Your task to perform on an android device: turn off wifi Image 0: 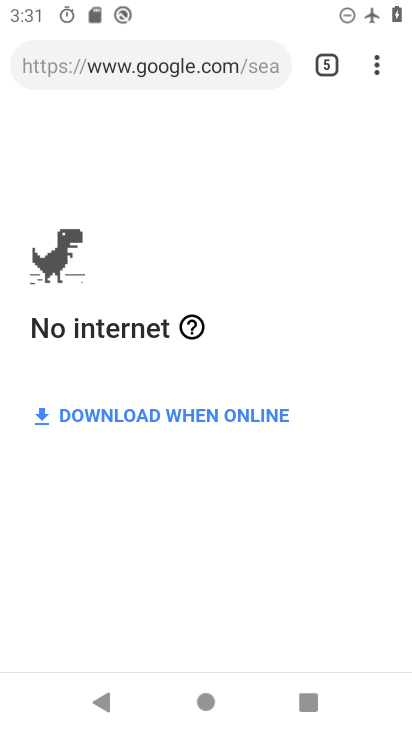
Step 0: press home button
Your task to perform on an android device: turn off wifi Image 1: 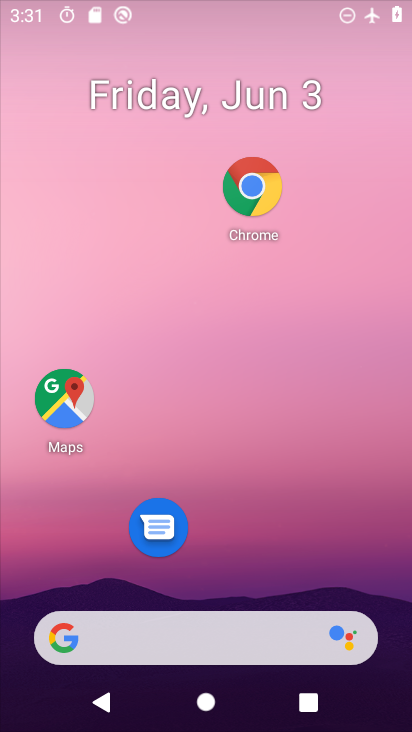
Step 1: drag from (207, 593) to (189, 242)
Your task to perform on an android device: turn off wifi Image 2: 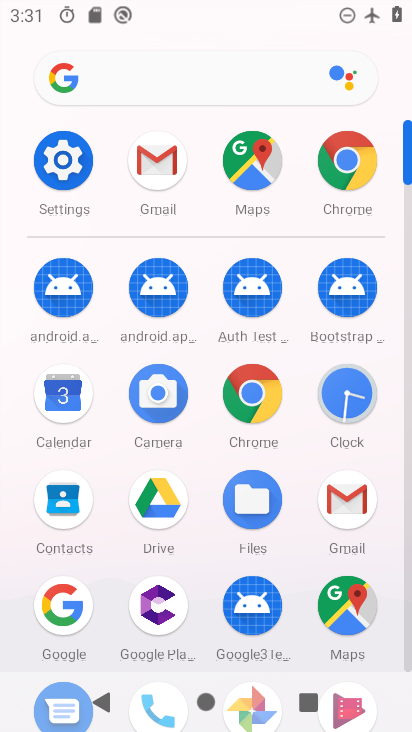
Step 2: click (43, 151)
Your task to perform on an android device: turn off wifi Image 3: 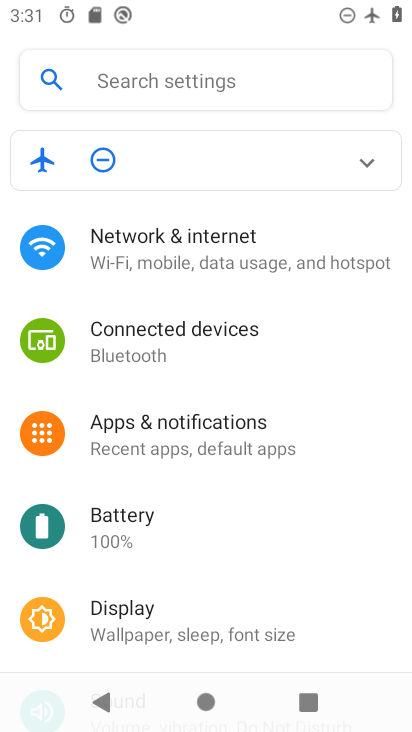
Step 3: click (166, 237)
Your task to perform on an android device: turn off wifi Image 4: 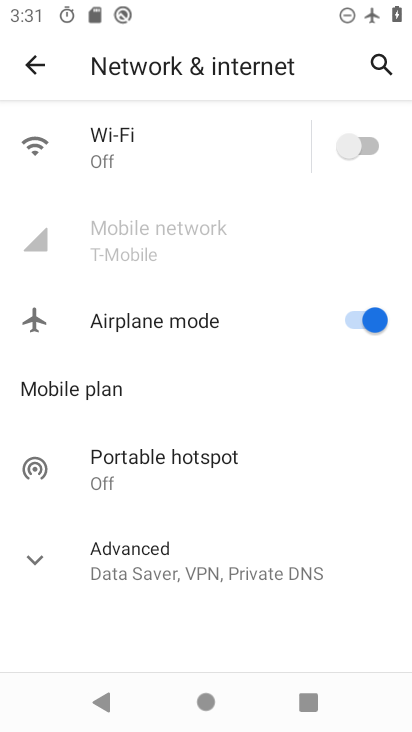
Step 4: task complete